Your task to perform on an android device: Go to internet settings Image 0: 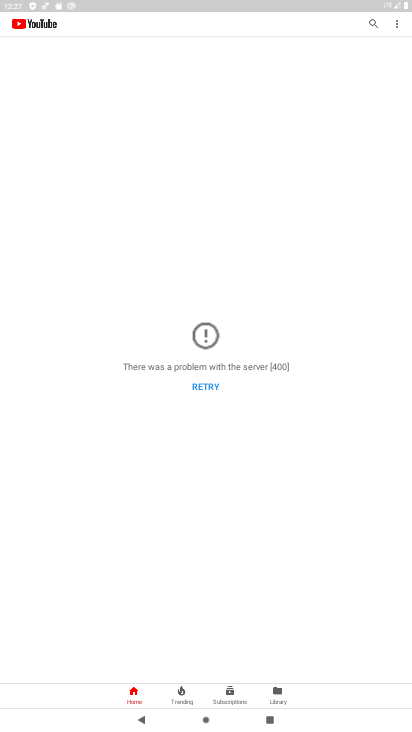
Step 0: press home button
Your task to perform on an android device: Go to internet settings Image 1: 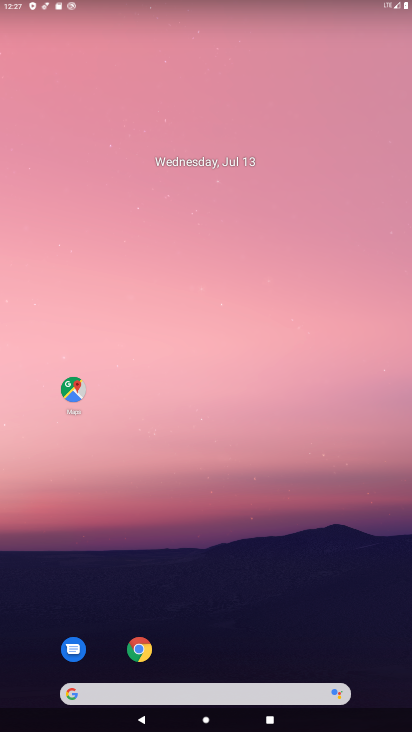
Step 1: drag from (183, 664) to (252, 117)
Your task to perform on an android device: Go to internet settings Image 2: 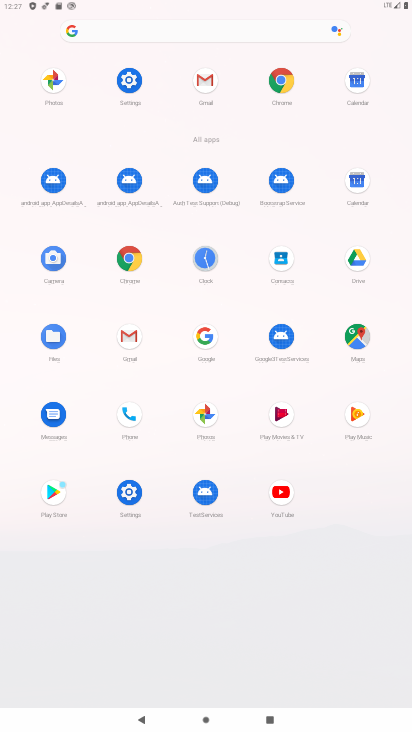
Step 2: click (132, 499)
Your task to perform on an android device: Go to internet settings Image 3: 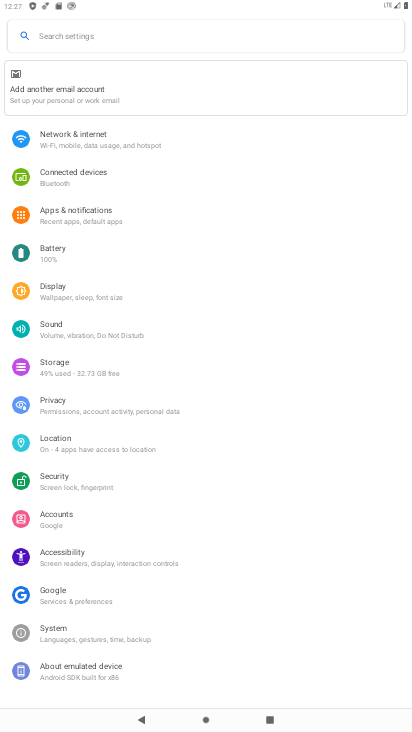
Step 3: click (139, 129)
Your task to perform on an android device: Go to internet settings Image 4: 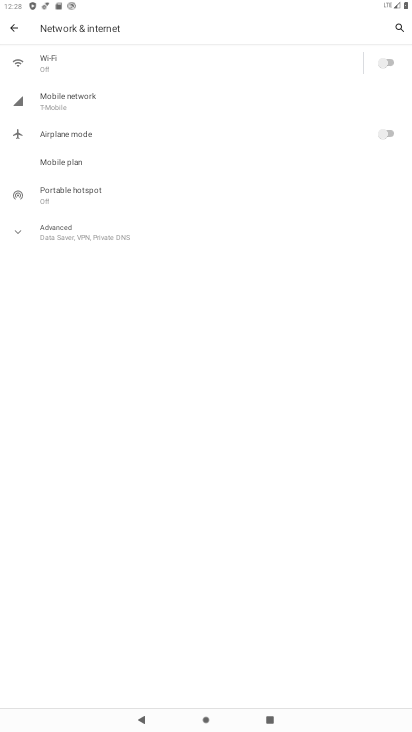
Step 4: click (128, 113)
Your task to perform on an android device: Go to internet settings Image 5: 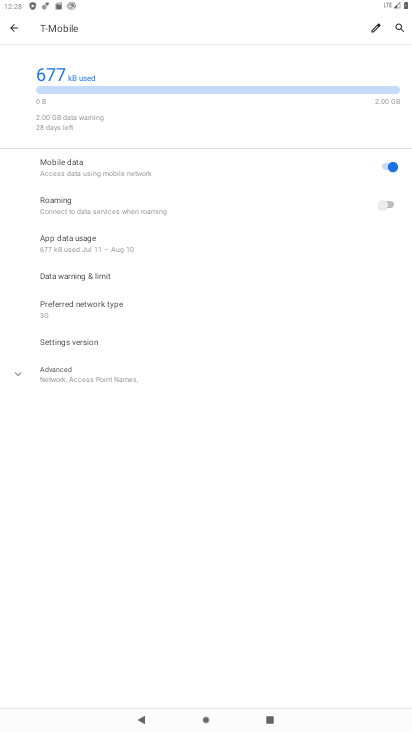
Step 5: task complete